Your task to perform on an android device: toggle wifi Image 0: 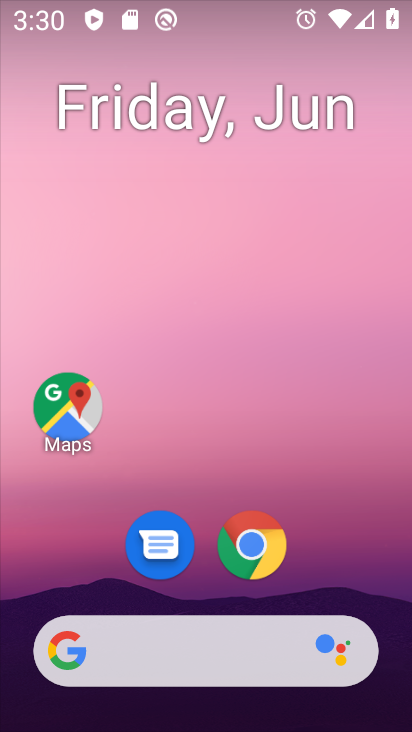
Step 0: drag from (342, 384) to (343, 12)
Your task to perform on an android device: toggle wifi Image 1: 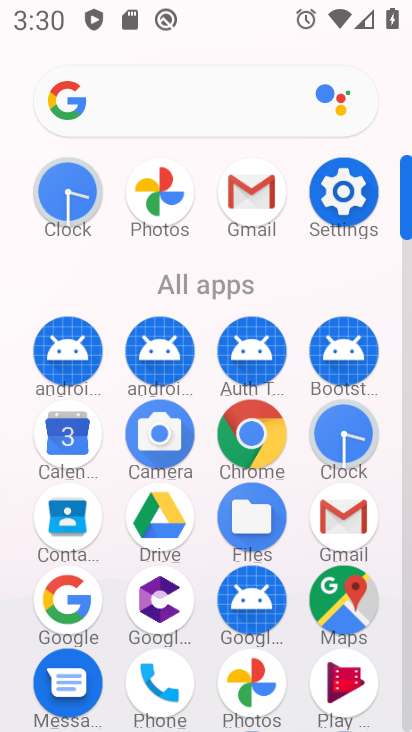
Step 1: click (344, 211)
Your task to perform on an android device: toggle wifi Image 2: 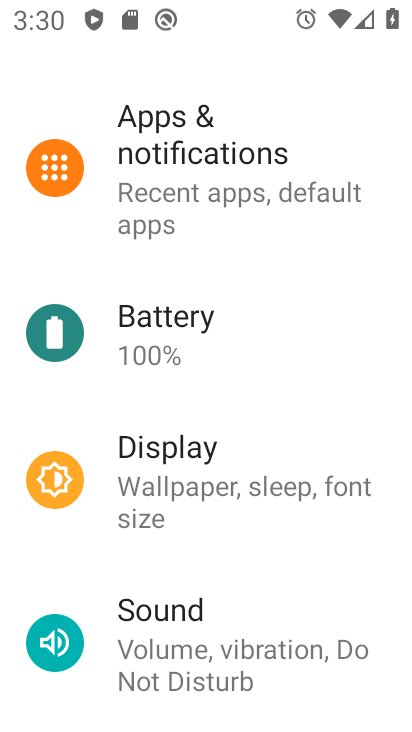
Step 2: drag from (239, 246) to (272, 696)
Your task to perform on an android device: toggle wifi Image 3: 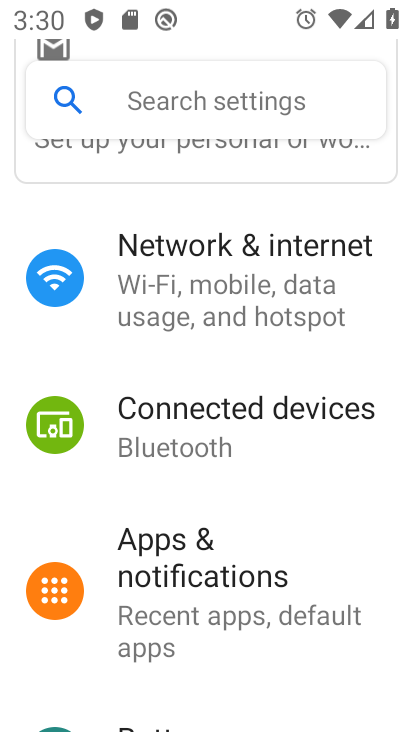
Step 3: click (221, 260)
Your task to perform on an android device: toggle wifi Image 4: 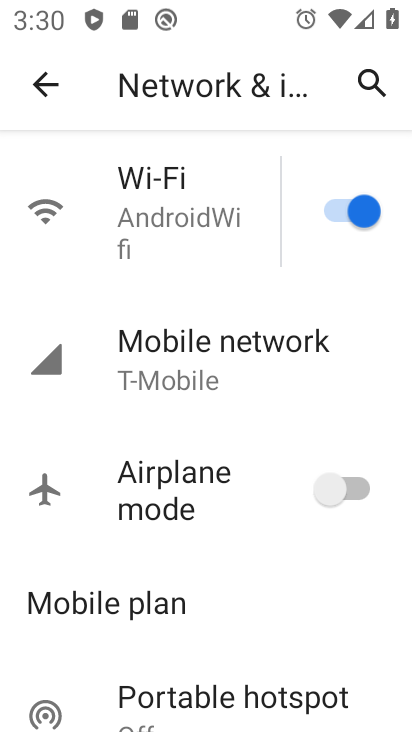
Step 4: click (333, 208)
Your task to perform on an android device: toggle wifi Image 5: 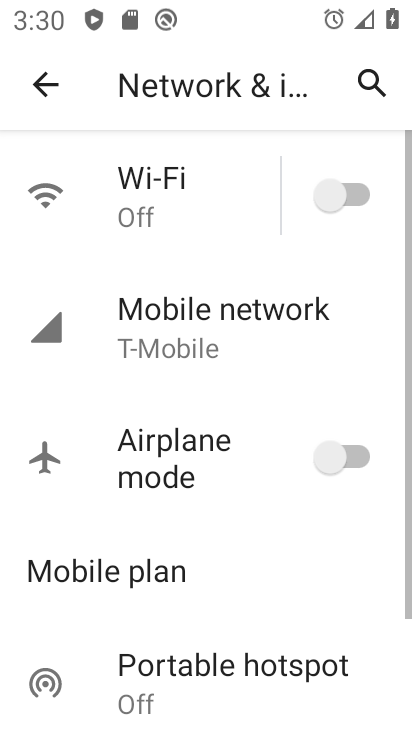
Step 5: task complete